Your task to perform on an android device: Do I have any events today? Image 0: 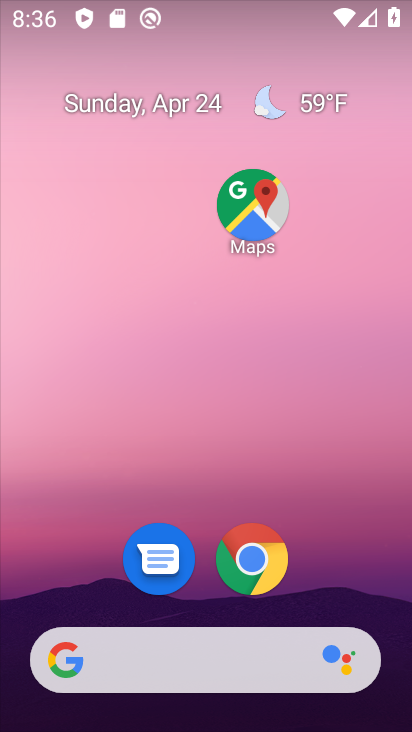
Step 0: drag from (35, 508) to (69, 264)
Your task to perform on an android device: Do I have any events today? Image 1: 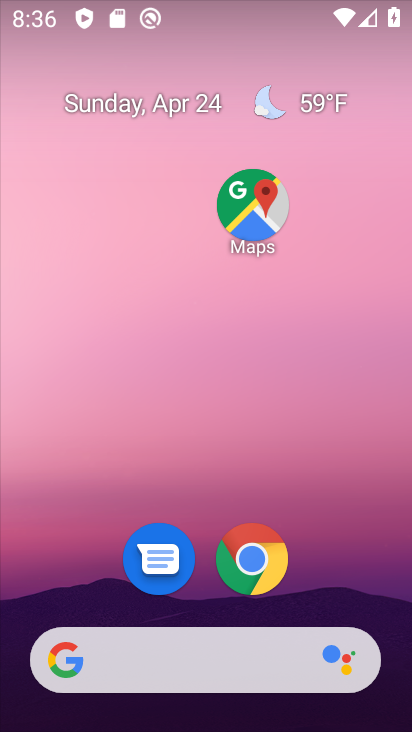
Step 1: drag from (64, 487) to (144, 217)
Your task to perform on an android device: Do I have any events today? Image 2: 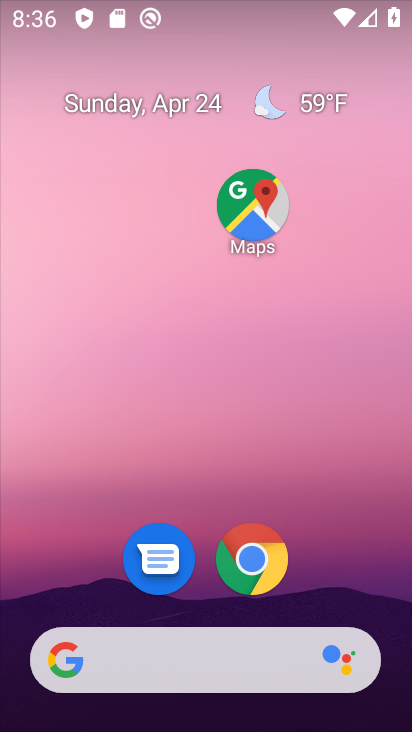
Step 2: drag from (44, 588) to (115, 352)
Your task to perform on an android device: Do I have any events today? Image 3: 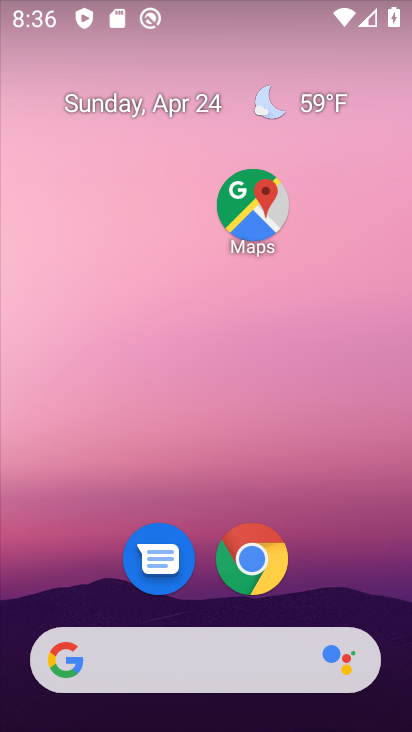
Step 3: drag from (19, 503) to (219, 144)
Your task to perform on an android device: Do I have any events today? Image 4: 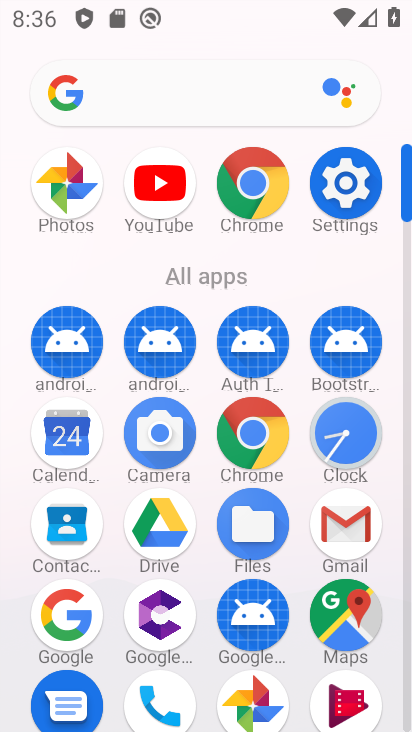
Step 4: click (75, 418)
Your task to perform on an android device: Do I have any events today? Image 5: 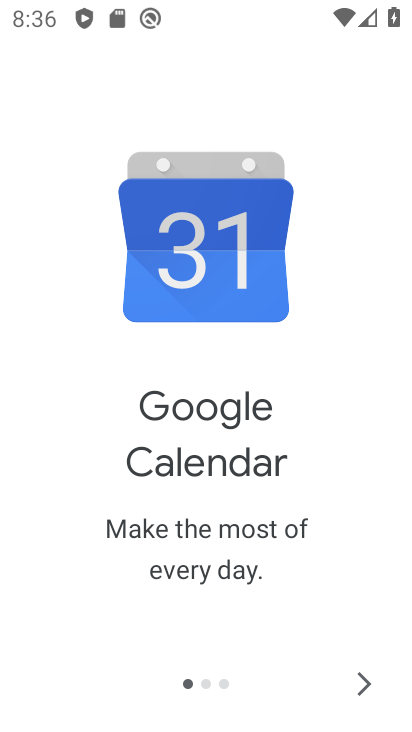
Step 5: click (358, 683)
Your task to perform on an android device: Do I have any events today? Image 6: 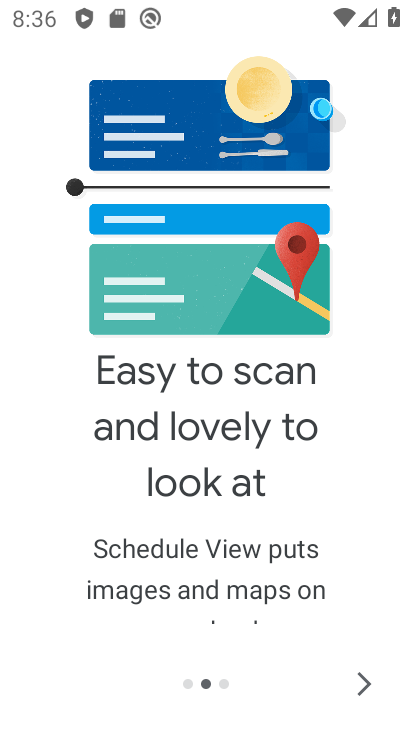
Step 6: click (363, 688)
Your task to perform on an android device: Do I have any events today? Image 7: 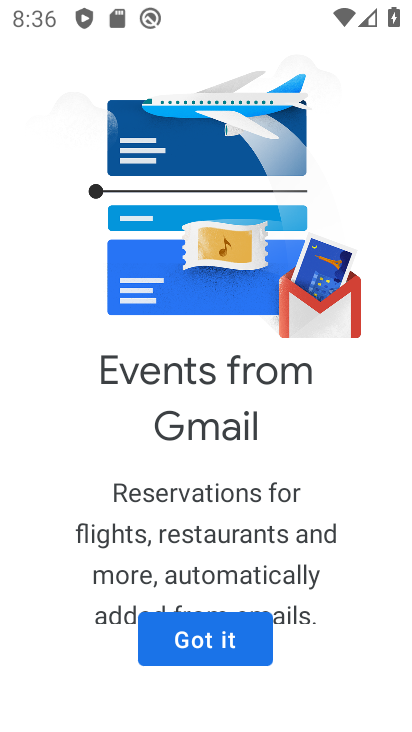
Step 7: click (237, 650)
Your task to perform on an android device: Do I have any events today? Image 8: 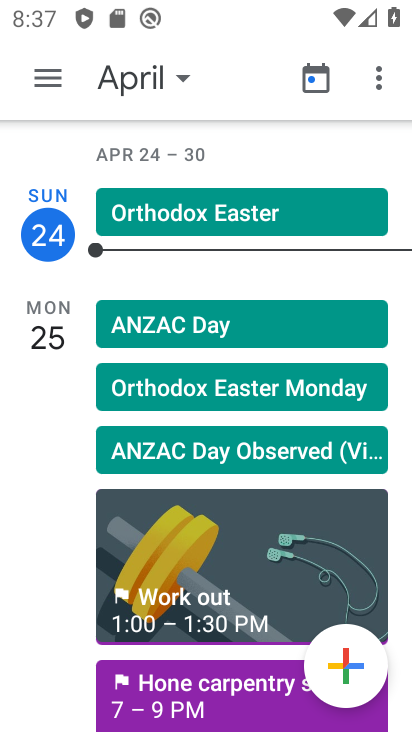
Step 8: task complete